Your task to perform on an android device: check out phone information Image 0: 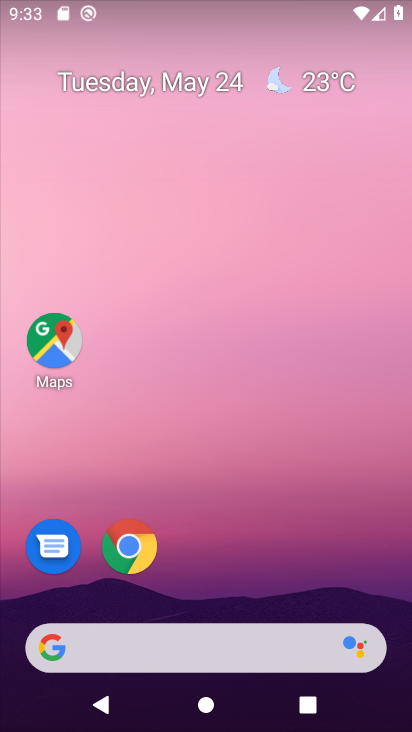
Step 0: drag from (214, 562) to (270, 66)
Your task to perform on an android device: check out phone information Image 1: 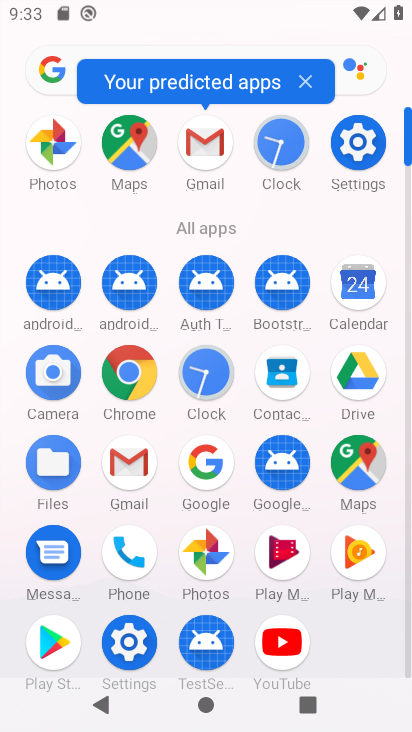
Step 1: click (359, 146)
Your task to perform on an android device: check out phone information Image 2: 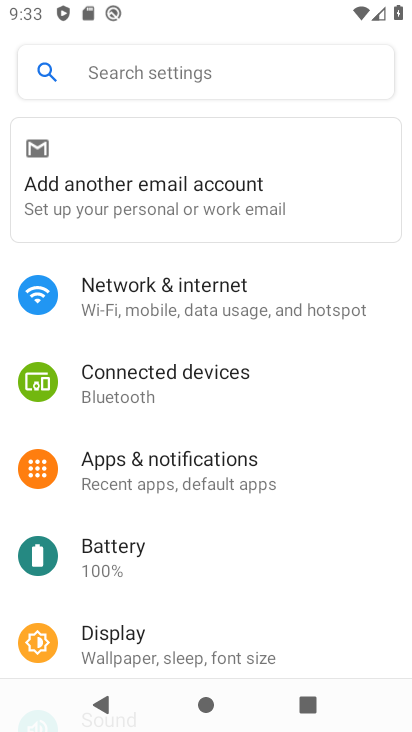
Step 2: drag from (258, 556) to (287, 132)
Your task to perform on an android device: check out phone information Image 3: 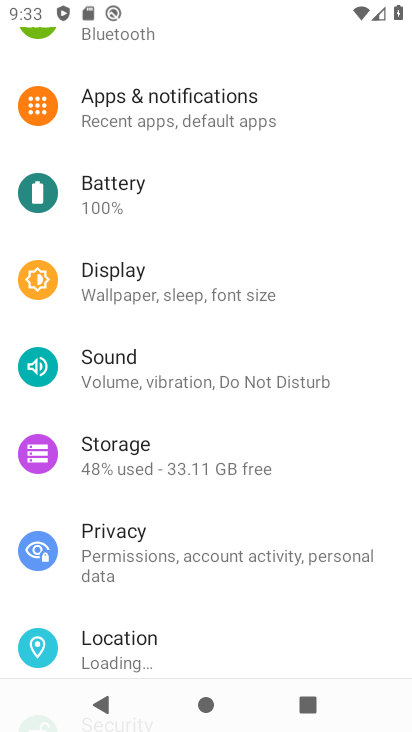
Step 3: drag from (220, 618) to (293, 82)
Your task to perform on an android device: check out phone information Image 4: 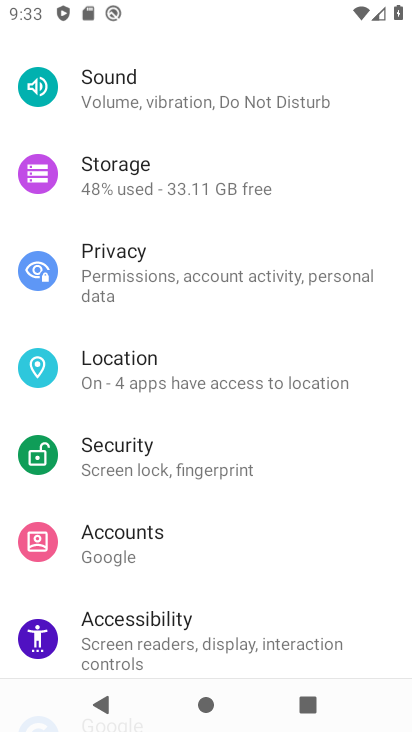
Step 4: drag from (184, 597) to (233, 107)
Your task to perform on an android device: check out phone information Image 5: 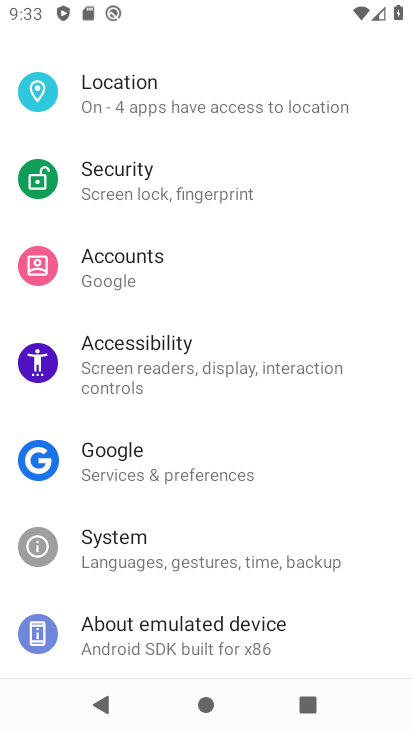
Step 5: click (186, 635)
Your task to perform on an android device: check out phone information Image 6: 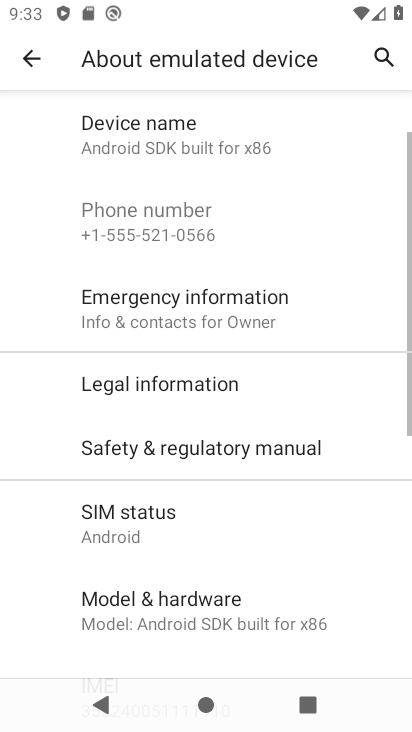
Step 6: task complete